Your task to perform on an android device: Play the last video I watched on Youtube Image 0: 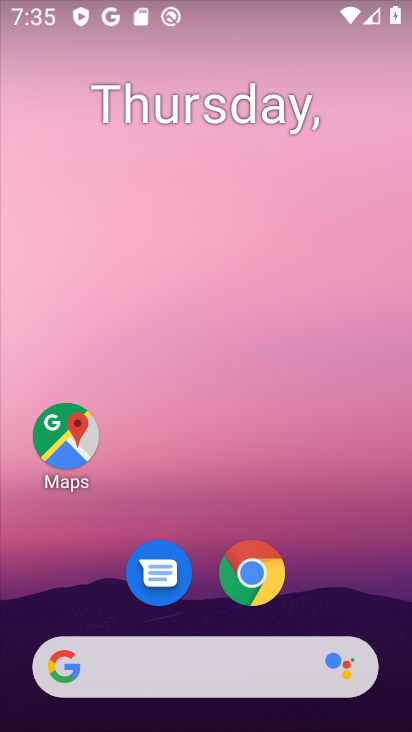
Step 0: drag from (347, 583) to (353, 230)
Your task to perform on an android device: Play the last video I watched on Youtube Image 1: 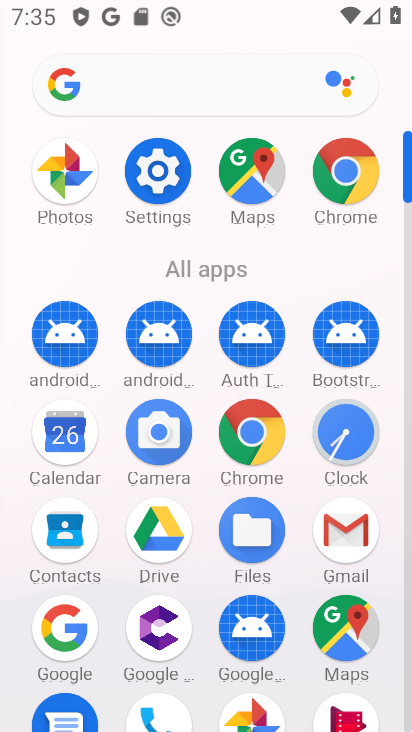
Step 1: drag from (164, 634) to (176, 355)
Your task to perform on an android device: Play the last video I watched on Youtube Image 2: 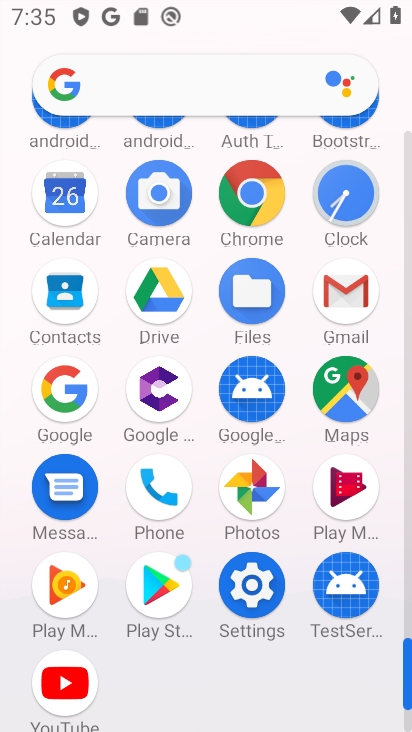
Step 2: click (91, 682)
Your task to perform on an android device: Play the last video I watched on Youtube Image 3: 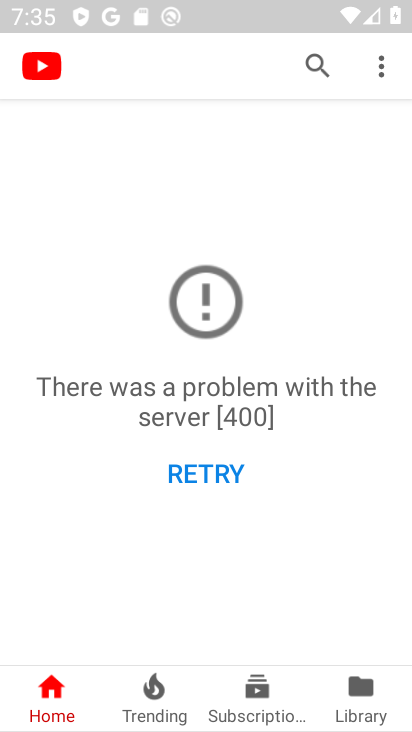
Step 3: click (372, 700)
Your task to perform on an android device: Play the last video I watched on Youtube Image 4: 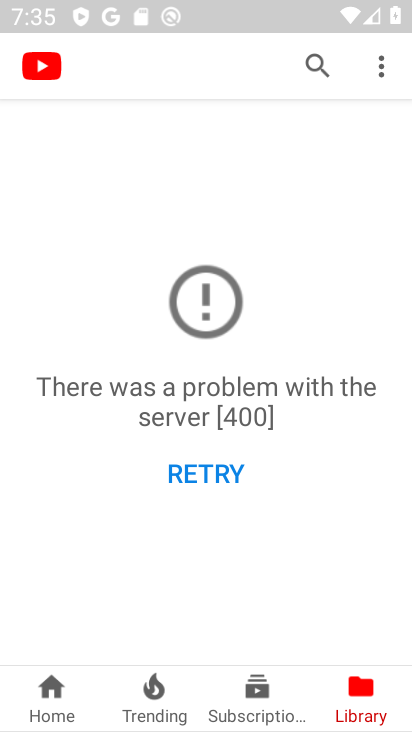
Step 4: task complete